Your task to perform on an android device: Open location settings Image 0: 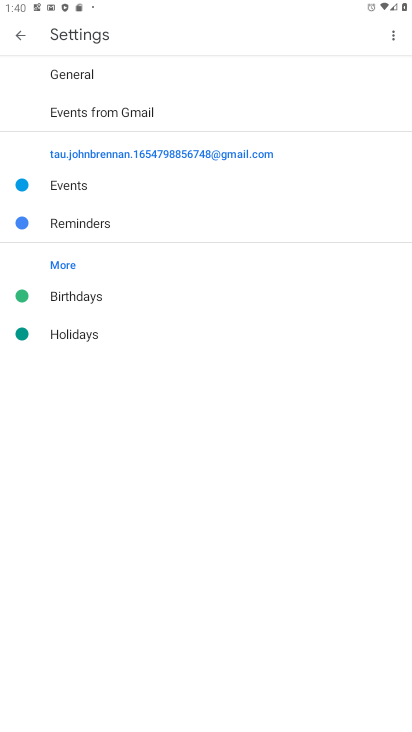
Step 0: press home button
Your task to perform on an android device: Open location settings Image 1: 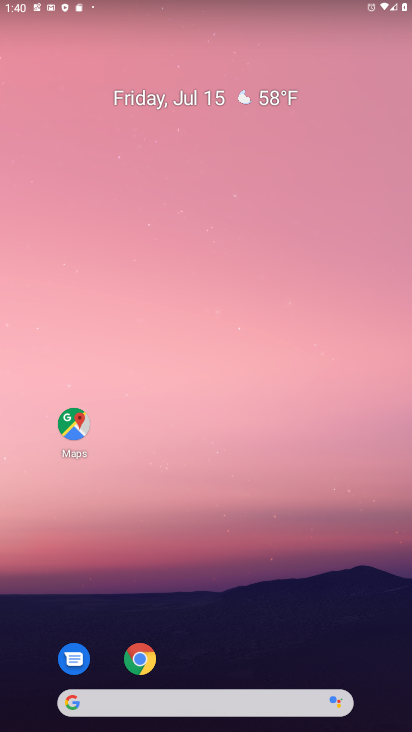
Step 1: drag from (241, 729) to (258, 201)
Your task to perform on an android device: Open location settings Image 2: 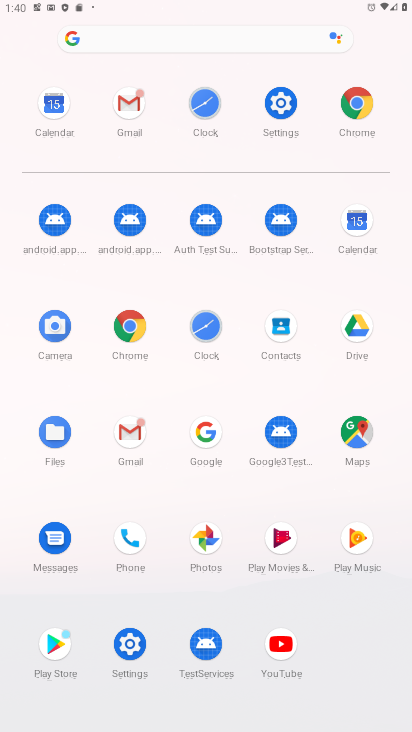
Step 2: click (284, 113)
Your task to perform on an android device: Open location settings Image 3: 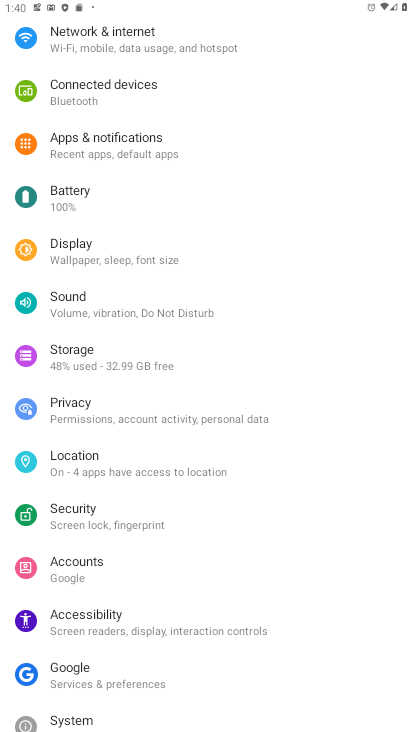
Step 3: click (79, 462)
Your task to perform on an android device: Open location settings Image 4: 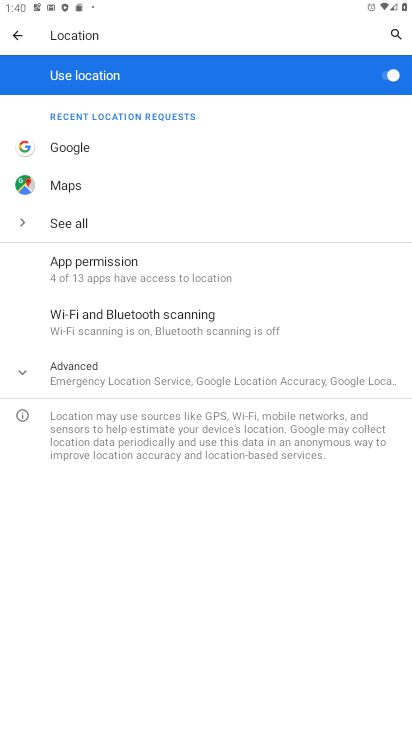
Step 4: task complete